Your task to perform on an android device: Open Yahoo.com Image 0: 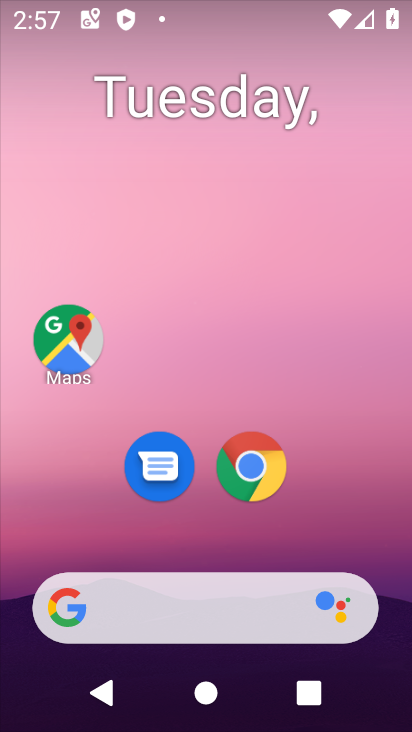
Step 0: drag from (353, 544) to (320, 179)
Your task to perform on an android device: Open Yahoo.com Image 1: 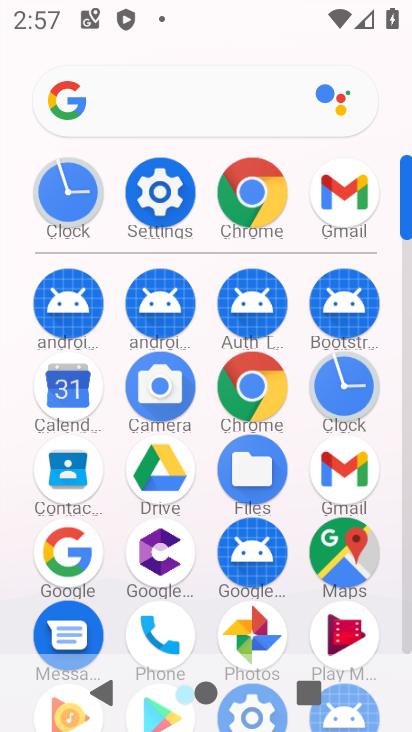
Step 1: click (166, 216)
Your task to perform on an android device: Open Yahoo.com Image 2: 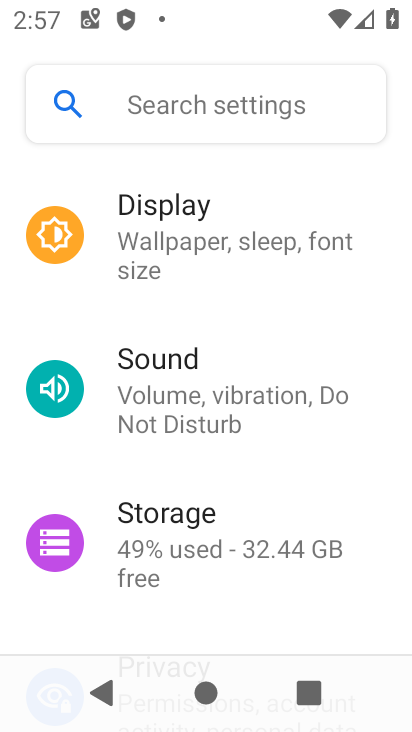
Step 2: task complete